Your task to perform on an android device: see creations saved in the google photos Image 0: 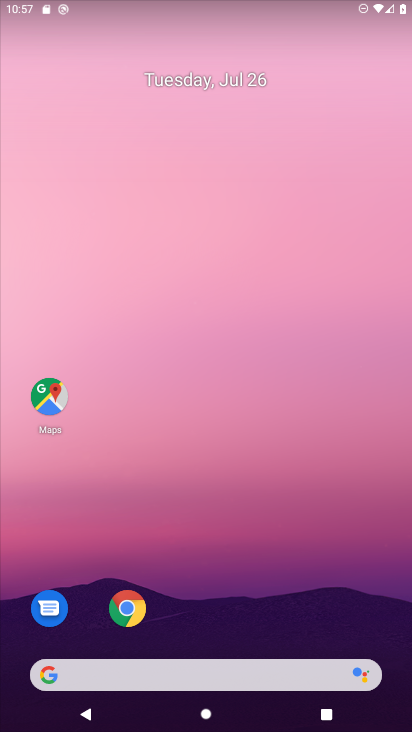
Step 0: drag from (304, 605) to (324, 64)
Your task to perform on an android device: see creations saved in the google photos Image 1: 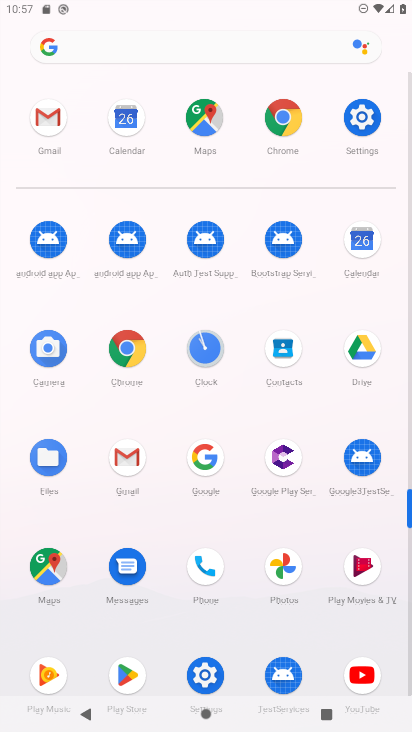
Step 1: click (277, 566)
Your task to perform on an android device: see creations saved in the google photos Image 2: 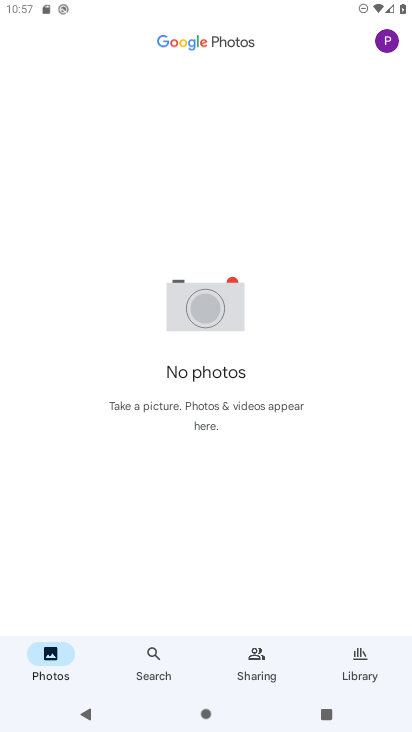
Step 2: click (348, 660)
Your task to perform on an android device: see creations saved in the google photos Image 3: 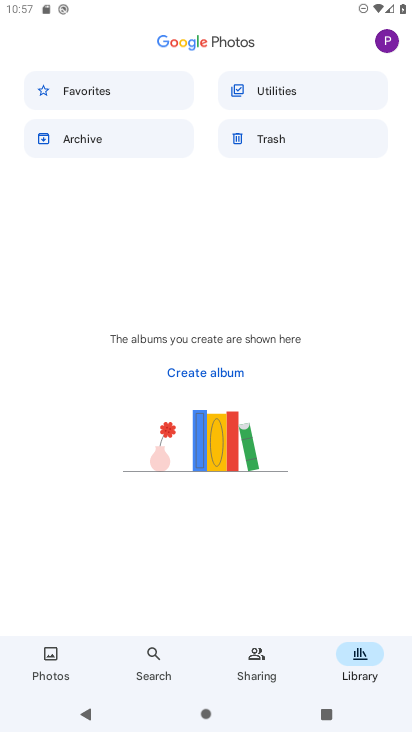
Step 3: task complete